Your task to perform on an android device: change notification settings in the gmail app Image 0: 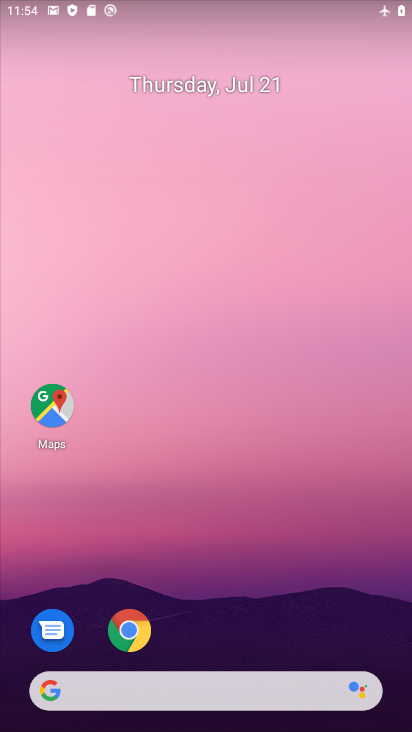
Step 0: drag from (305, 624) to (259, 131)
Your task to perform on an android device: change notification settings in the gmail app Image 1: 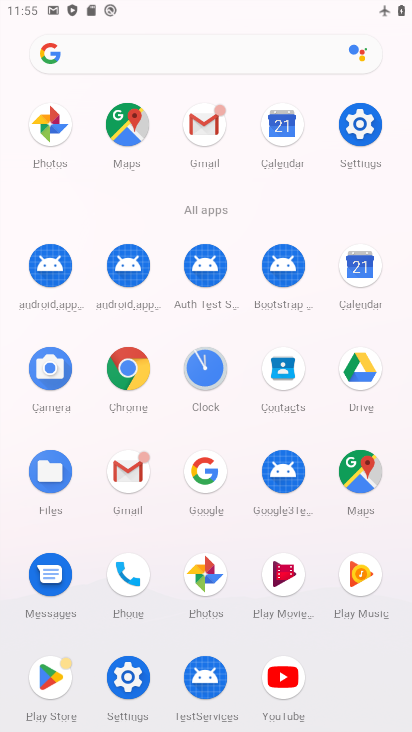
Step 1: click (136, 467)
Your task to perform on an android device: change notification settings in the gmail app Image 2: 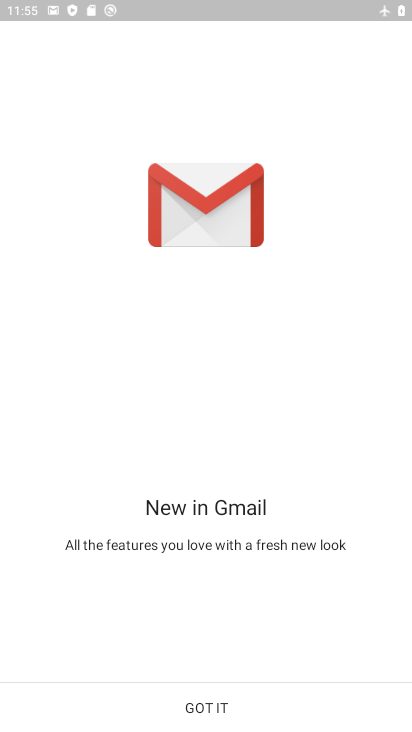
Step 2: press home button
Your task to perform on an android device: change notification settings in the gmail app Image 3: 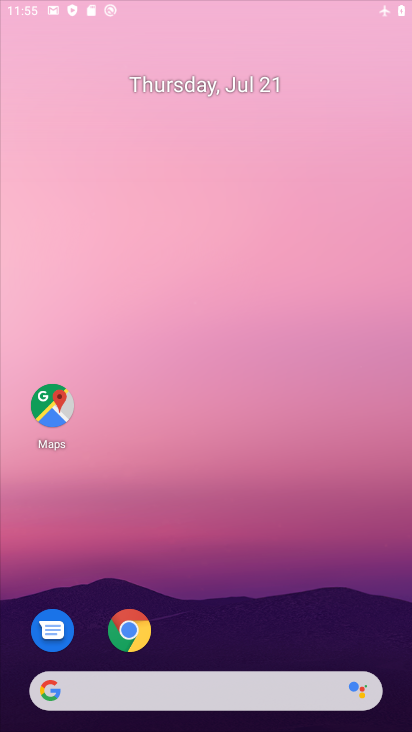
Step 3: drag from (239, 639) to (215, 120)
Your task to perform on an android device: change notification settings in the gmail app Image 4: 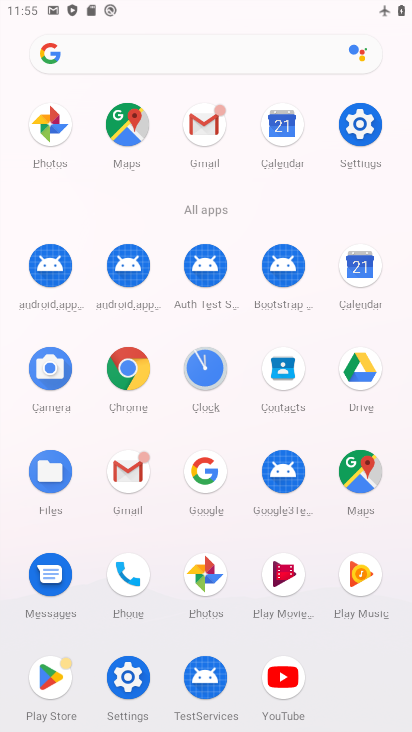
Step 4: click (135, 492)
Your task to perform on an android device: change notification settings in the gmail app Image 5: 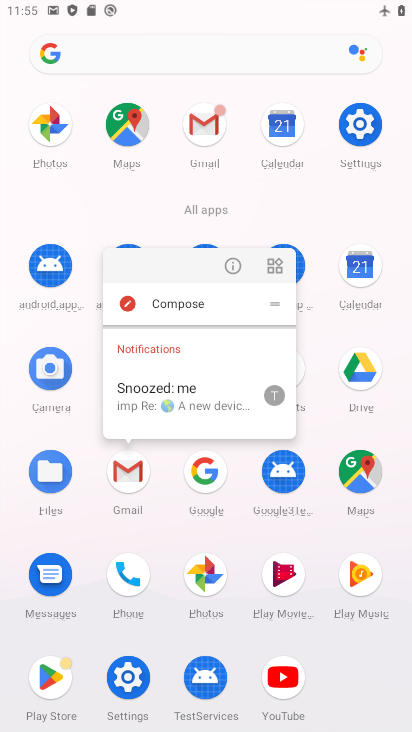
Step 5: click (234, 259)
Your task to perform on an android device: change notification settings in the gmail app Image 6: 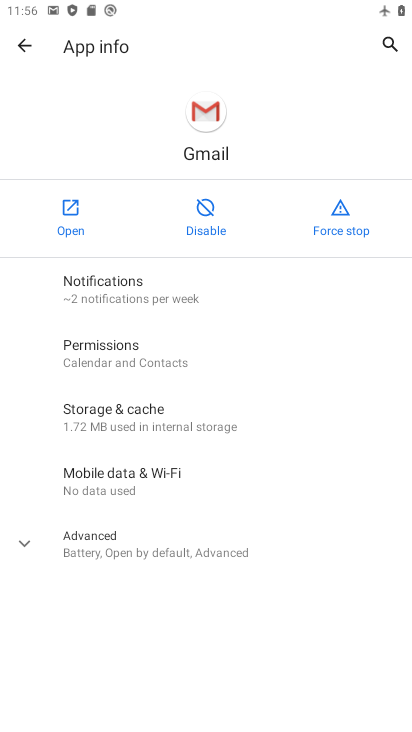
Step 6: click (50, 293)
Your task to perform on an android device: change notification settings in the gmail app Image 7: 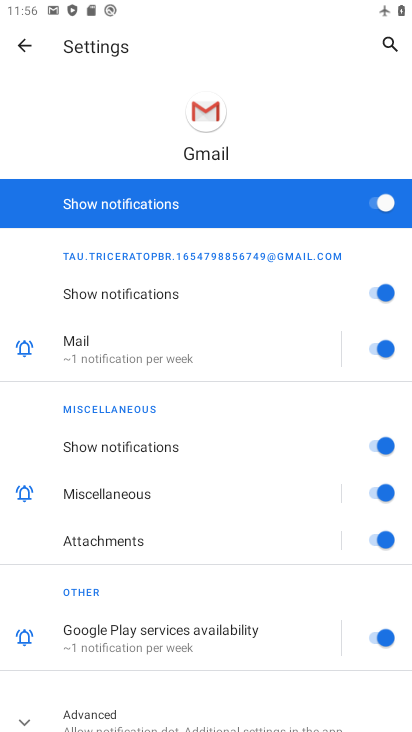
Step 7: click (183, 213)
Your task to perform on an android device: change notification settings in the gmail app Image 8: 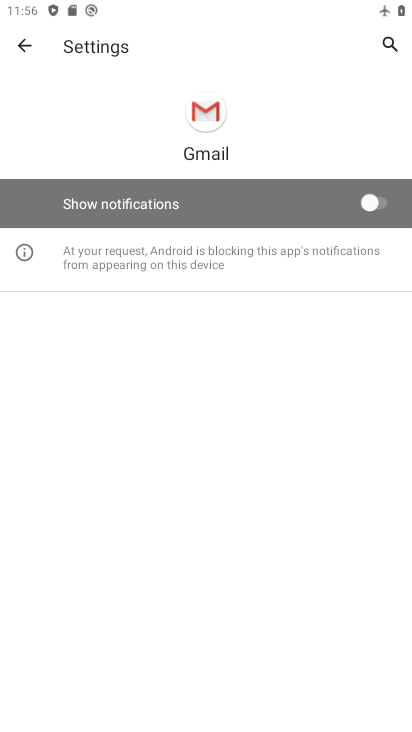
Step 8: task complete